Your task to perform on an android device: Go to ESPN.com Image 0: 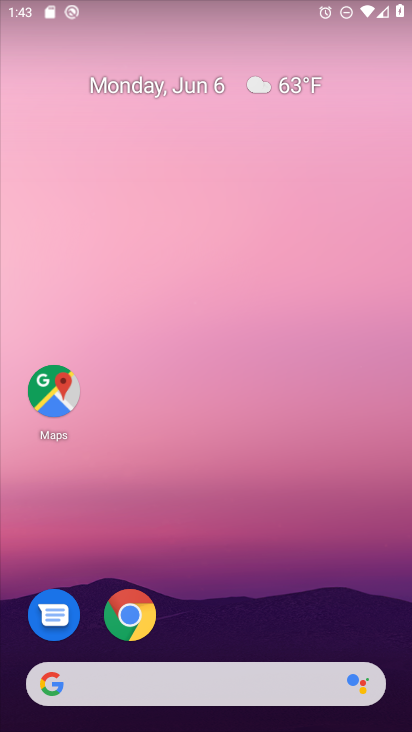
Step 0: click (122, 607)
Your task to perform on an android device: Go to ESPN.com Image 1: 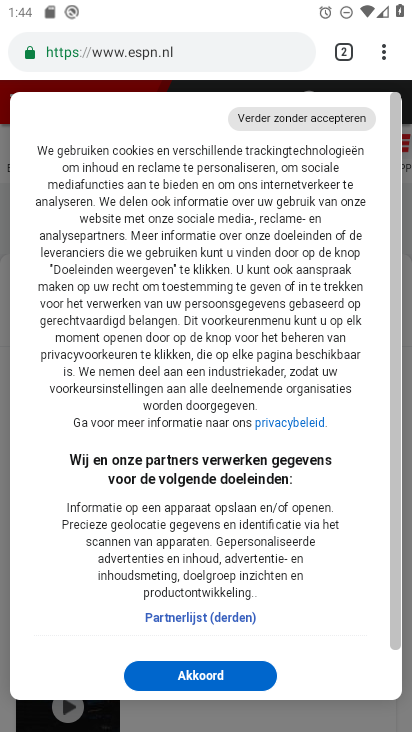
Step 1: task complete